Your task to perform on an android device: open the mobile data screen to see how much data has been used Image 0: 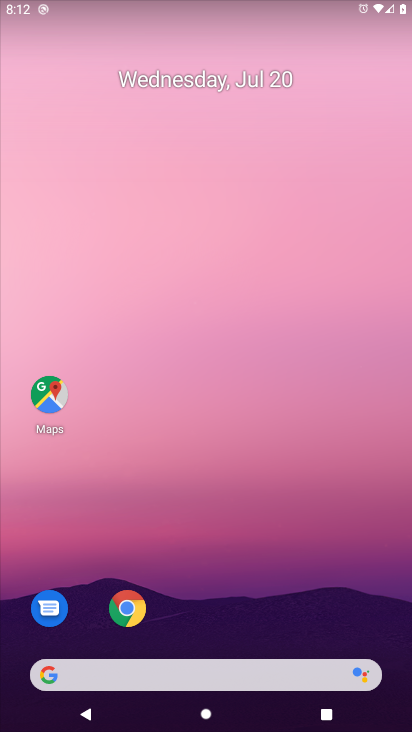
Step 0: drag from (207, 617) to (227, 73)
Your task to perform on an android device: open the mobile data screen to see how much data has been used Image 1: 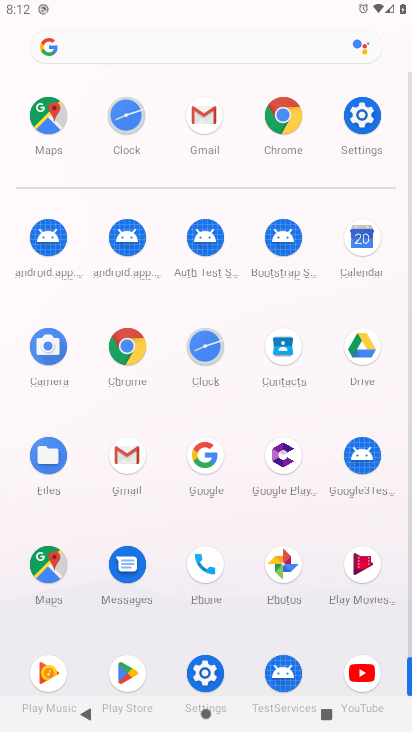
Step 1: click (205, 667)
Your task to perform on an android device: open the mobile data screen to see how much data has been used Image 2: 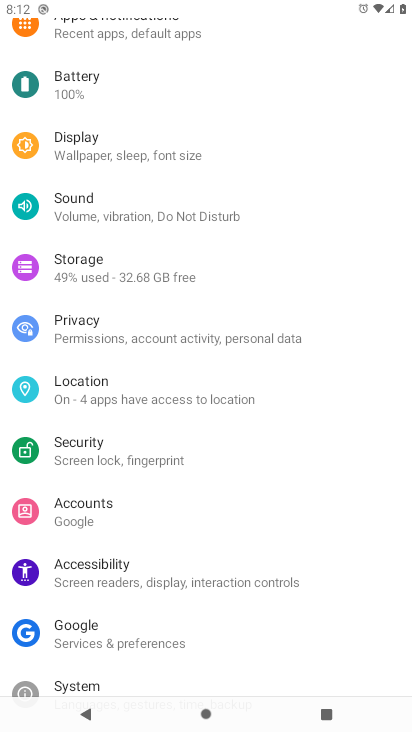
Step 2: drag from (103, 109) to (106, 574)
Your task to perform on an android device: open the mobile data screen to see how much data has been used Image 3: 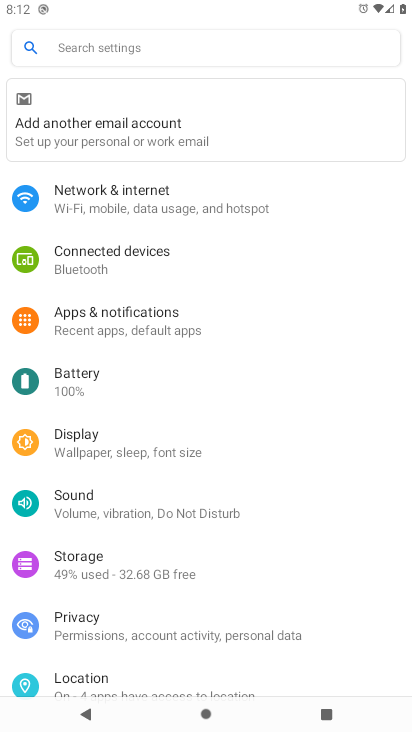
Step 3: click (147, 201)
Your task to perform on an android device: open the mobile data screen to see how much data has been used Image 4: 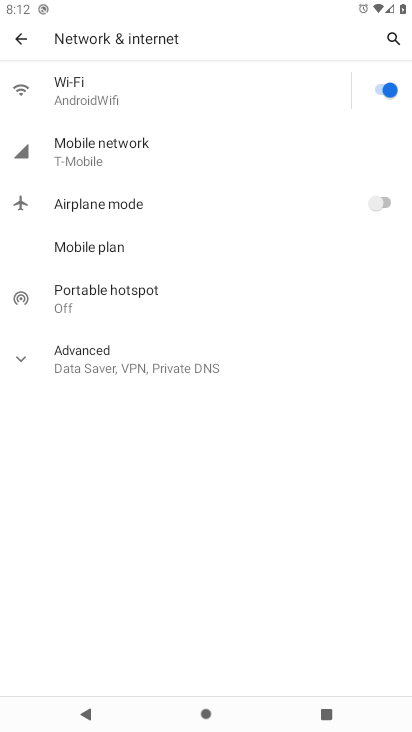
Step 4: click (138, 152)
Your task to perform on an android device: open the mobile data screen to see how much data has been used Image 5: 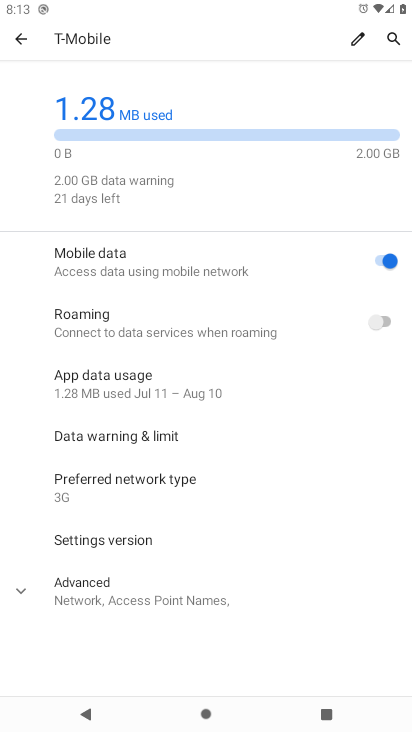
Step 5: click (132, 390)
Your task to perform on an android device: open the mobile data screen to see how much data has been used Image 6: 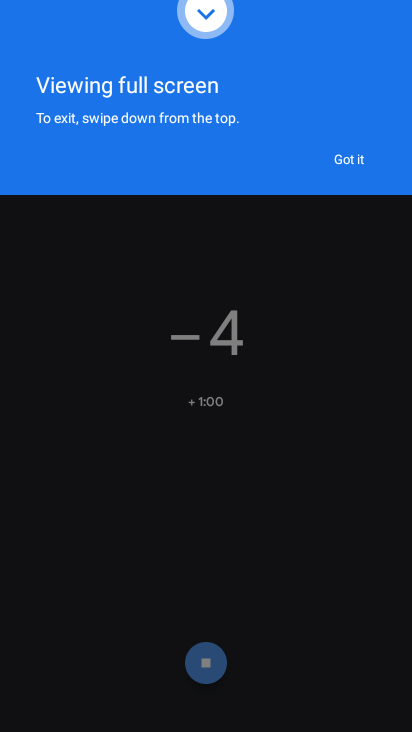
Step 6: click (204, 657)
Your task to perform on an android device: open the mobile data screen to see how much data has been used Image 7: 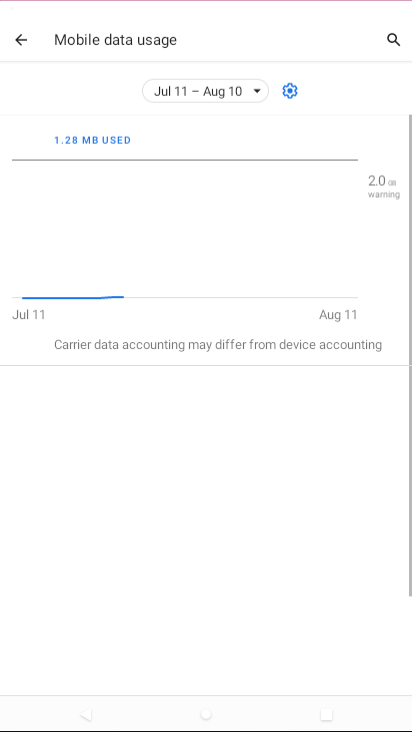
Step 7: task complete